Your task to perform on an android device: open the mobile data screen to see how much data has been used Image 0: 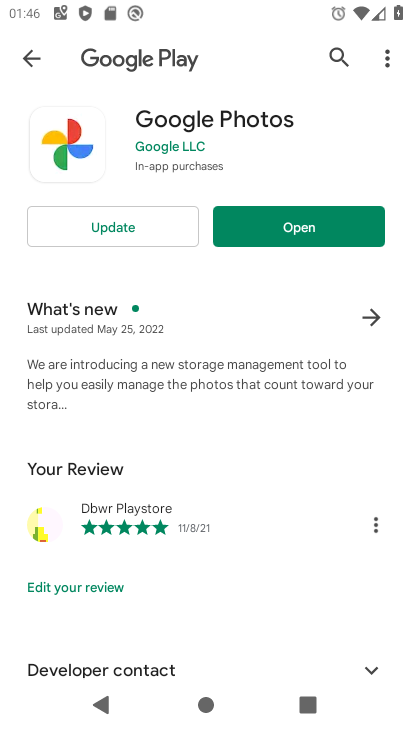
Step 0: press home button
Your task to perform on an android device: open the mobile data screen to see how much data has been used Image 1: 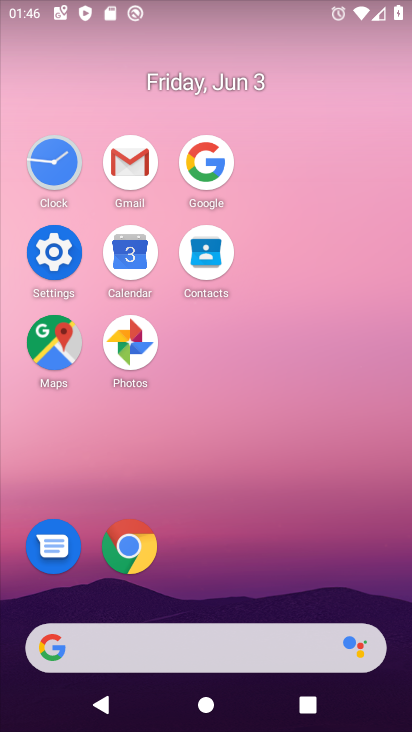
Step 1: click (36, 254)
Your task to perform on an android device: open the mobile data screen to see how much data has been used Image 2: 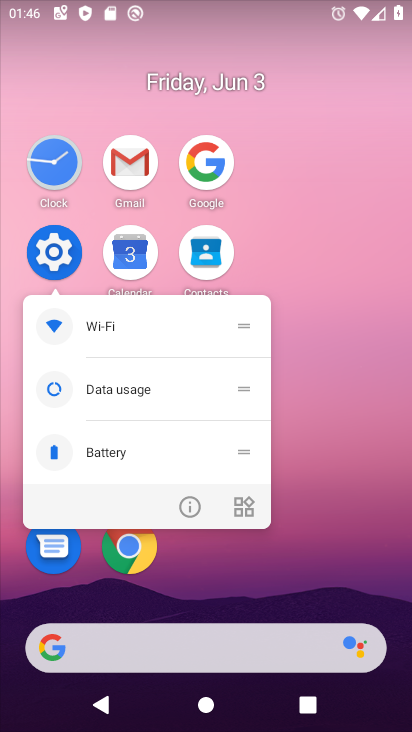
Step 2: click (55, 243)
Your task to perform on an android device: open the mobile data screen to see how much data has been used Image 3: 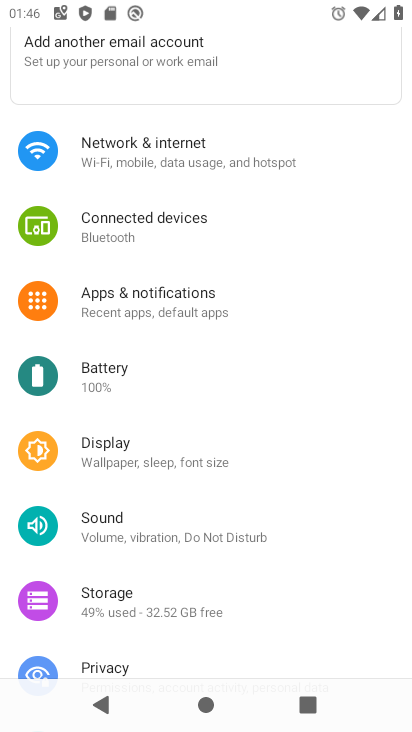
Step 3: click (206, 139)
Your task to perform on an android device: open the mobile data screen to see how much data has been used Image 4: 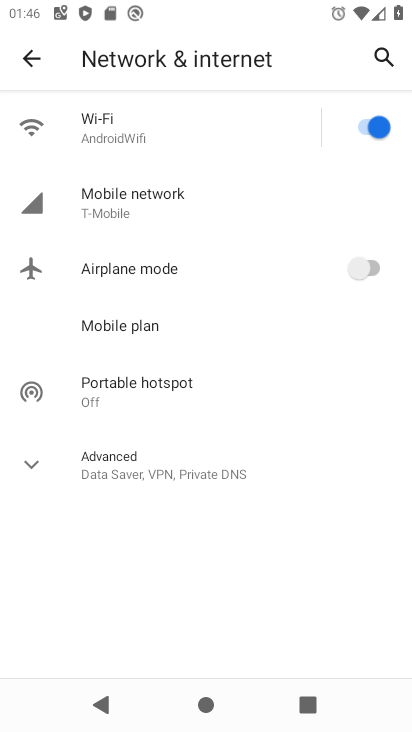
Step 4: click (197, 197)
Your task to perform on an android device: open the mobile data screen to see how much data has been used Image 5: 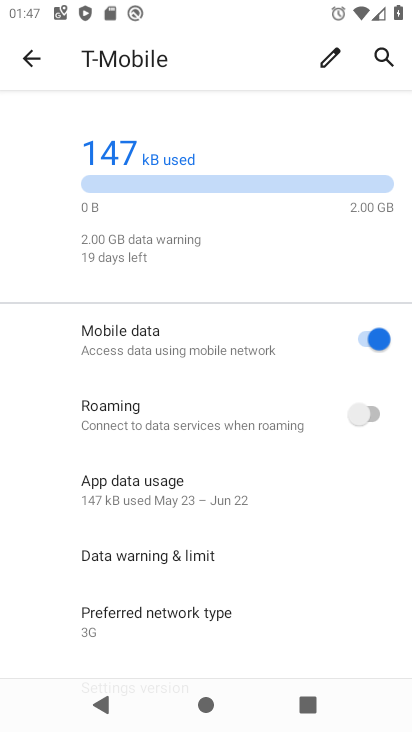
Step 5: task complete